Your task to perform on an android device: open a new tab in the chrome app Image 0: 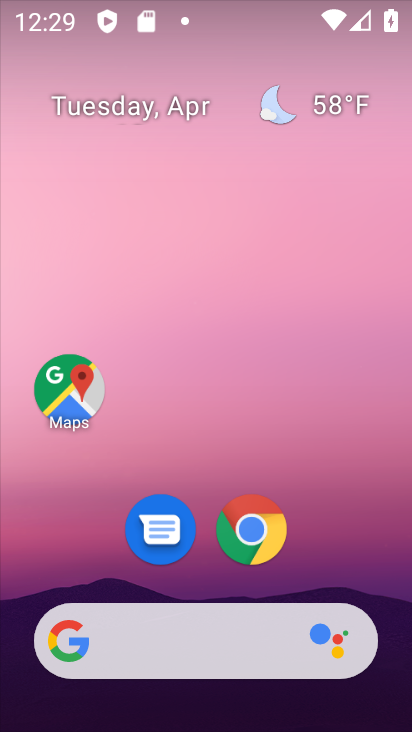
Step 0: drag from (380, 602) to (309, 148)
Your task to perform on an android device: open a new tab in the chrome app Image 1: 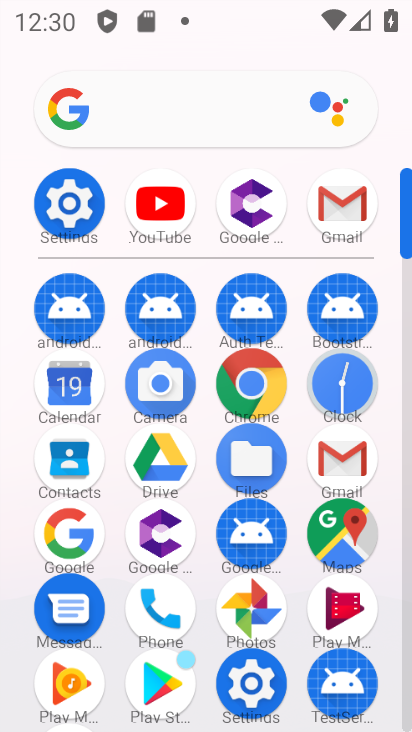
Step 1: click (249, 390)
Your task to perform on an android device: open a new tab in the chrome app Image 2: 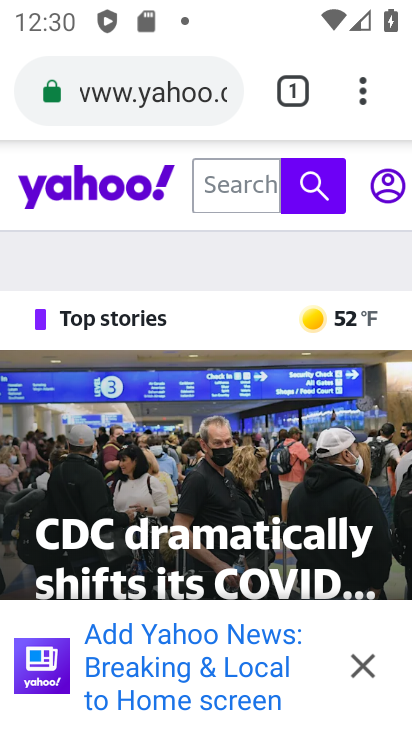
Step 2: click (297, 89)
Your task to perform on an android device: open a new tab in the chrome app Image 3: 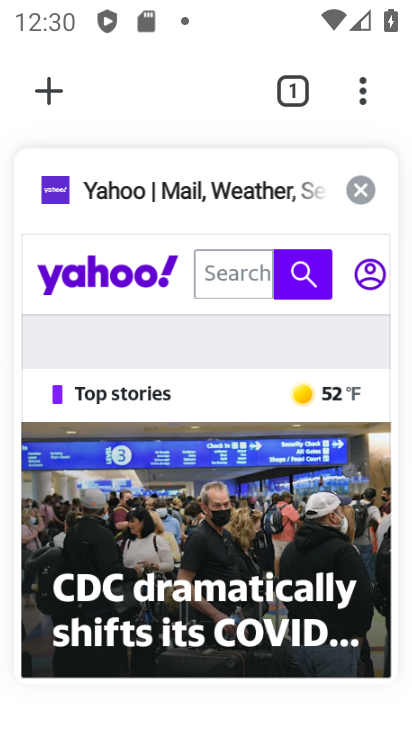
Step 3: click (356, 190)
Your task to perform on an android device: open a new tab in the chrome app Image 4: 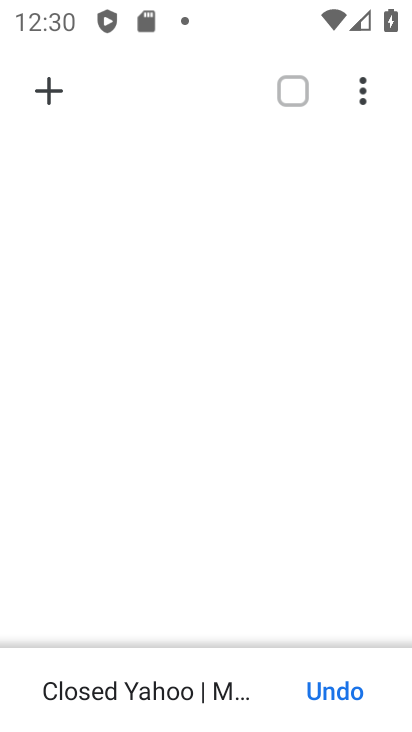
Step 4: click (49, 90)
Your task to perform on an android device: open a new tab in the chrome app Image 5: 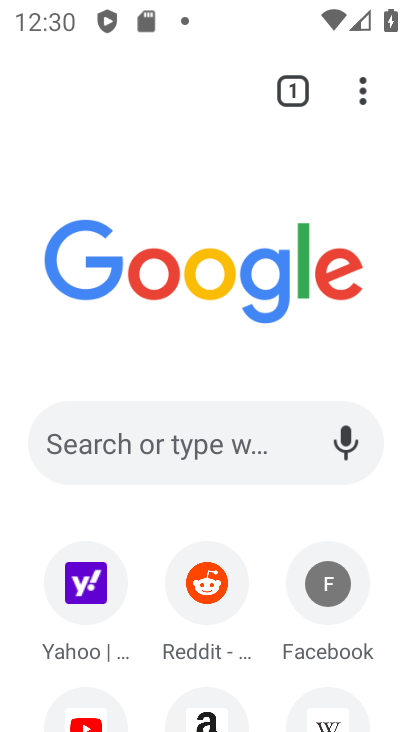
Step 5: task complete